Your task to perform on an android device: turn on notifications settings in the gmail app Image 0: 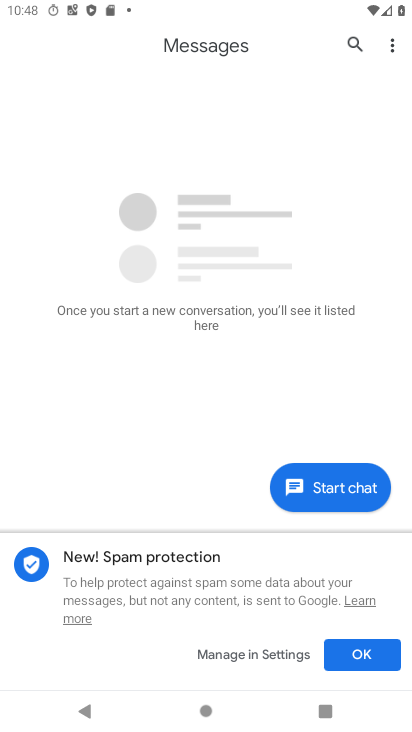
Step 0: press home button
Your task to perform on an android device: turn on notifications settings in the gmail app Image 1: 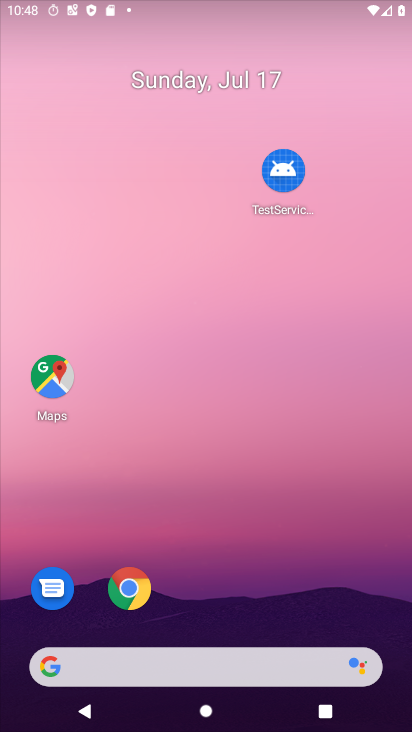
Step 1: drag from (235, 636) to (297, 78)
Your task to perform on an android device: turn on notifications settings in the gmail app Image 2: 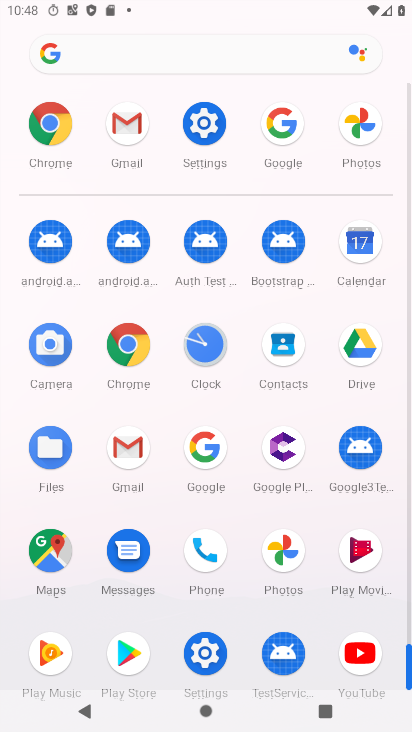
Step 2: click (213, 151)
Your task to perform on an android device: turn on notifications settings in the gmail app Image 3: 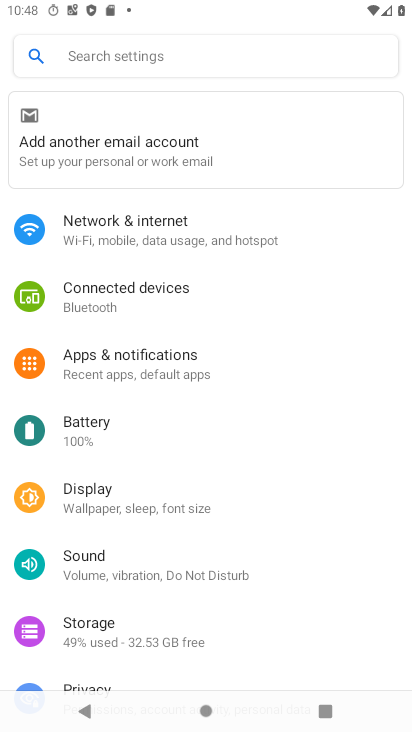
Step 3: press home button
Your task to perform on an android device: turn on notifications settings in the gmail app Image 4: 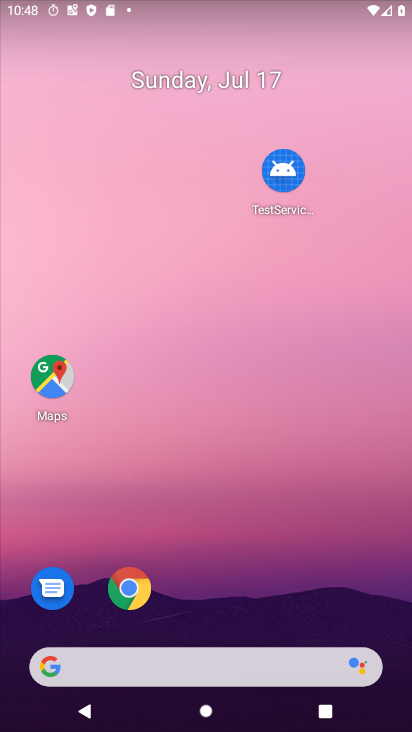
Step 4: drag from (224, 613) to (319, 51)
Your task to perform on an android device: turn on notifications settings in the gmail app Image 5: 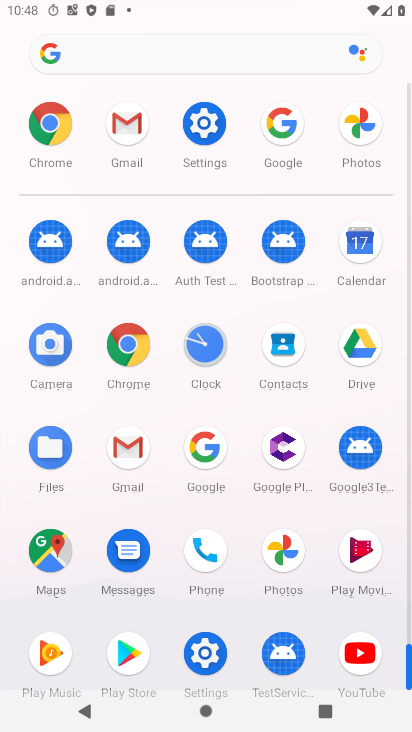
Step 5: click (134, 466)
Your task to perform on an android device: turn on notifications settings in the gmail app Image 6: 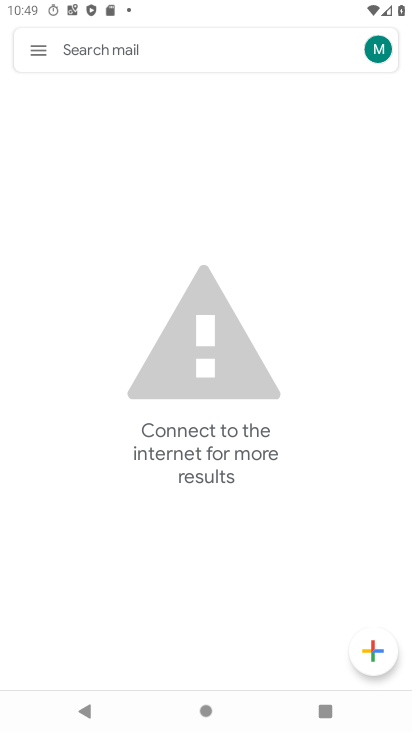
Step 6: click (38, 54)
Your task to perform on an android device: turn on notifications settings in the gmail app Image 7: 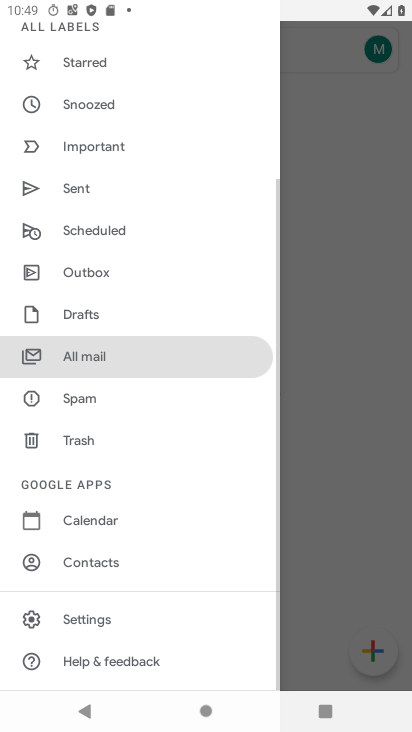
Step 7: click (95, 616)
Your task to perform on an android device: turn on notifications settings in the gmail app Image 8: 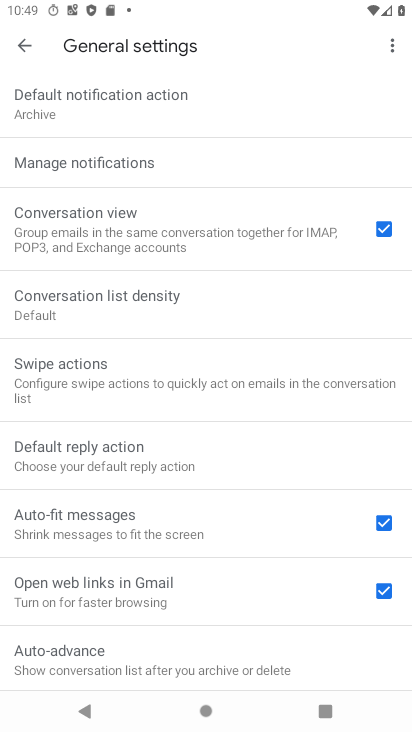
Step 8: click (127, 171)
Your task to perform on an android device: turn on notifications settings in the gmail app Image 9: 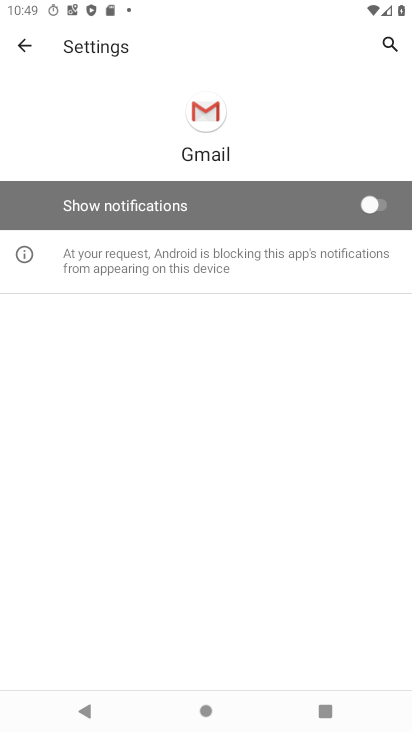
Step 9: click (242, 215)
Your task to perform on an android device: turn on notifications settings in the gmail app Image 10: 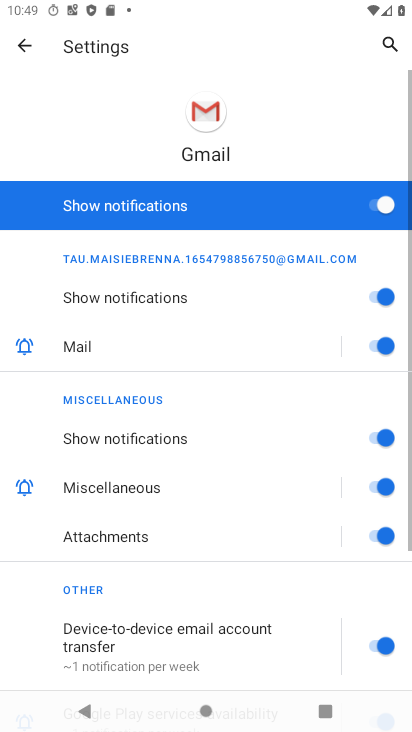
Step 10: task complete